Your task to perform on an android device: Open location settings Image 0: 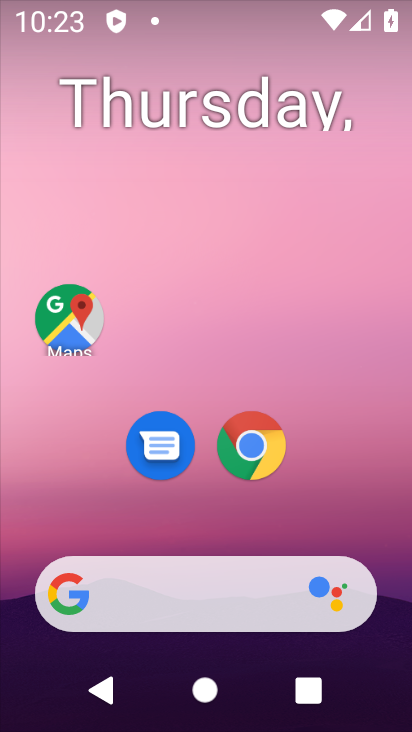
Step 0: drag from (241, 725) to (243, 111)
Your task to perform on an android device: Open location settings Image 1: 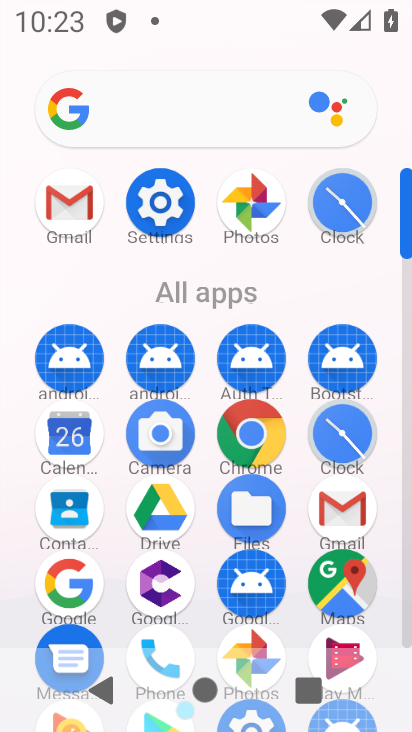
Step 1: click (166, 190)
Your task to perform on an android device: Open location settings Image 2: 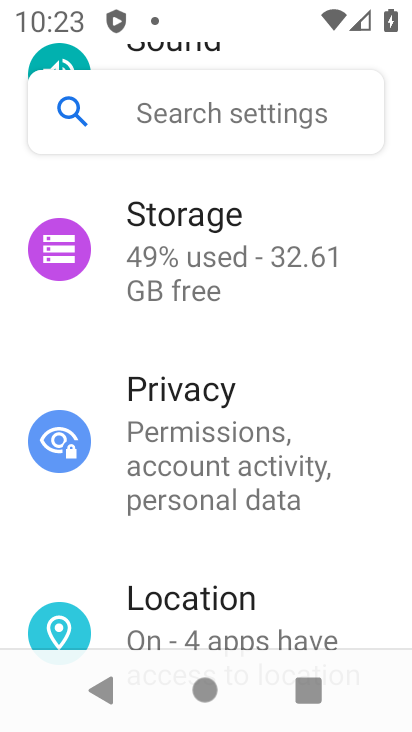
Step 2: click (145, 611)
Your task to perform on an android device: Open location settings Image 3: 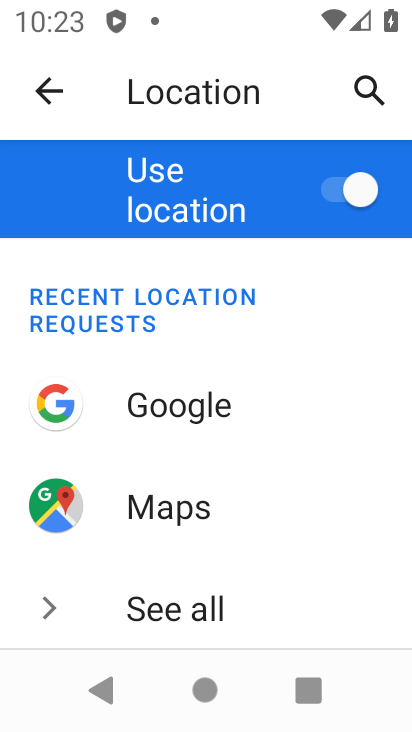
Step 3: task complete